Your task to perform on an android device: Open Google Maps Image 0: 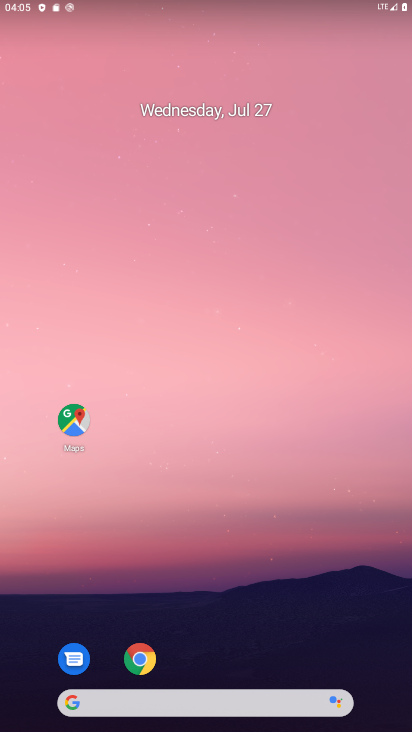
Step 0: click (70, 421)
Your task to perform on an android device: Open Google Maps Image 1: 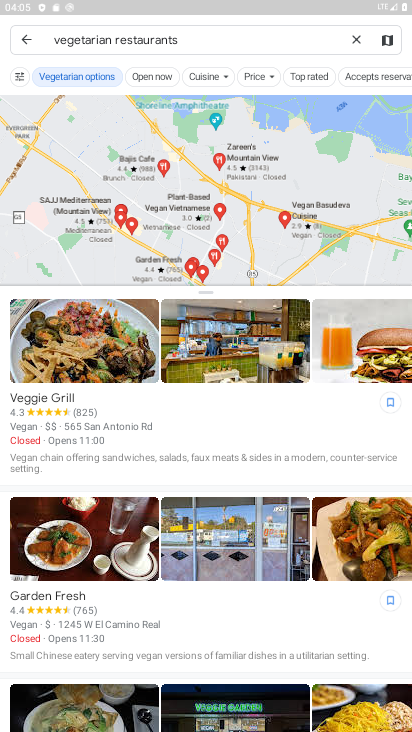
Step 1: task complete